Your task to perform on an android device: See recent photos Image 0: 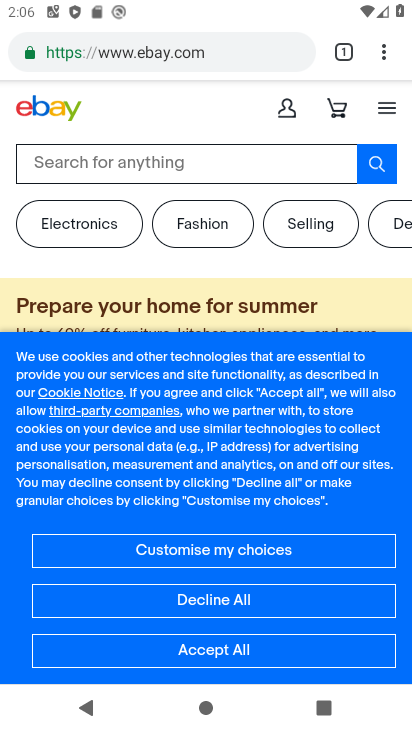
Step 0: press home button
Your task to perform on an android device: See recent photos Image 1: 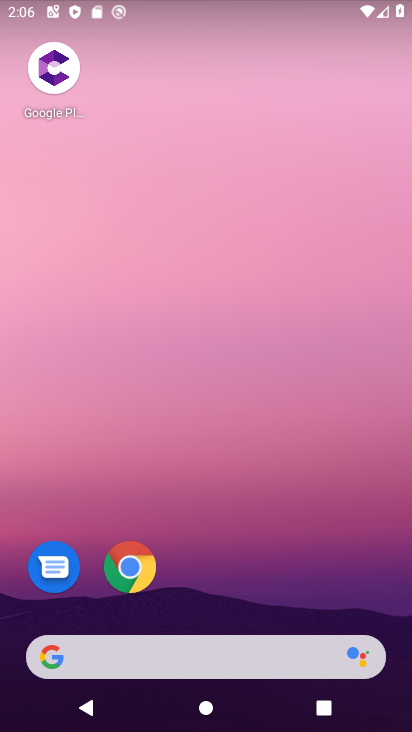
Step 1: drag from (254, 600) to (243, 308)
Your task to perform on an android device: See recent photos Image 2: 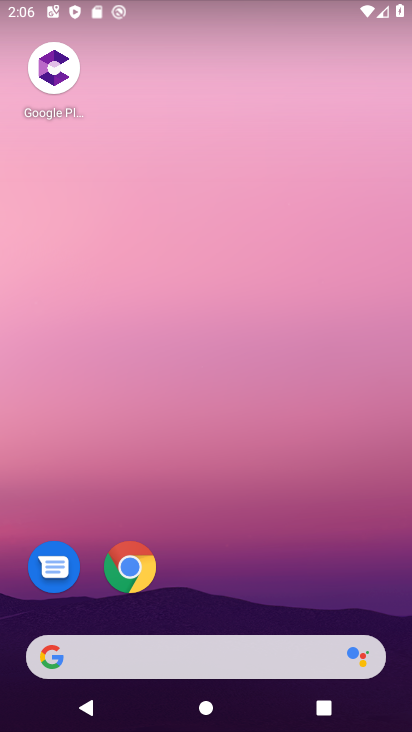
Step 2: drag from (165, 261) to (124, 158)
Your task to perform on an android device: See recent photos Image 3: 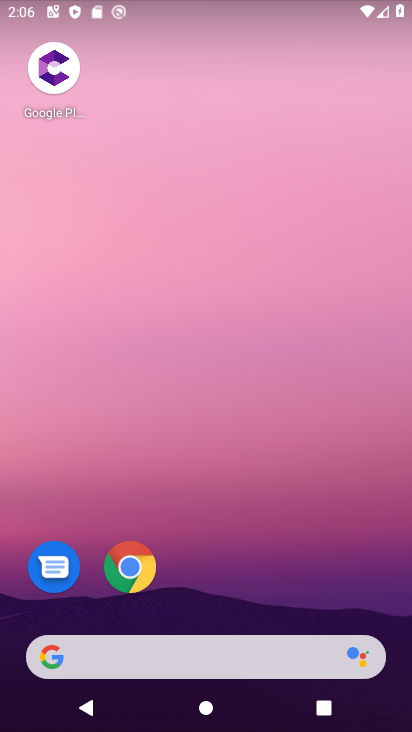
Step 3: drag from (280, 492) to (158, 5)
Your task to perform on an android device: See recent photos Image 4: 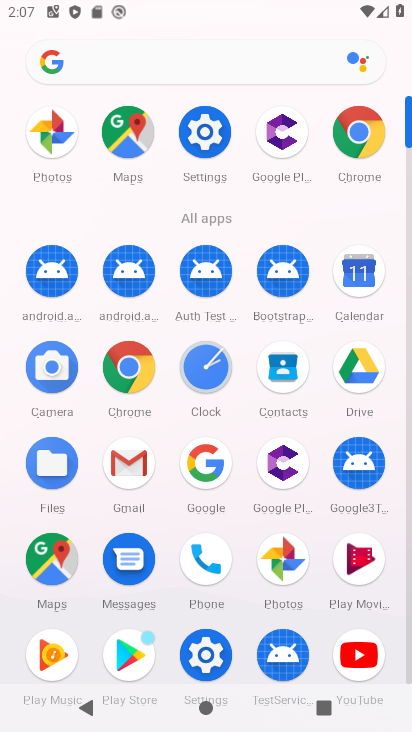
Step 4: click (293, 576)
Your task to perform on an android device: See recent photos Image 5: 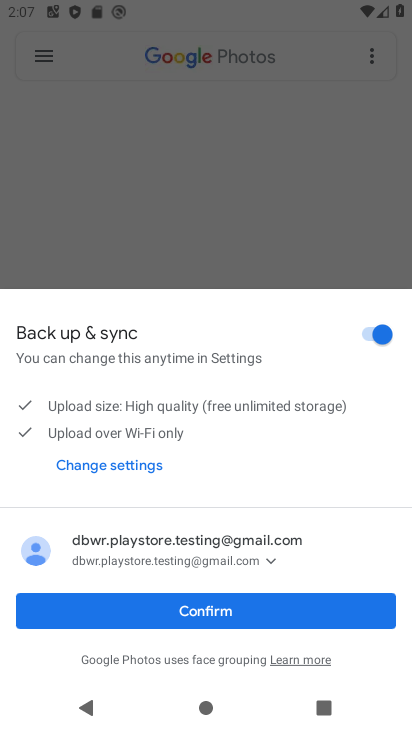
Step 5: click (249, 608)
Your task to perform on an android device: See recent photos Image 6: 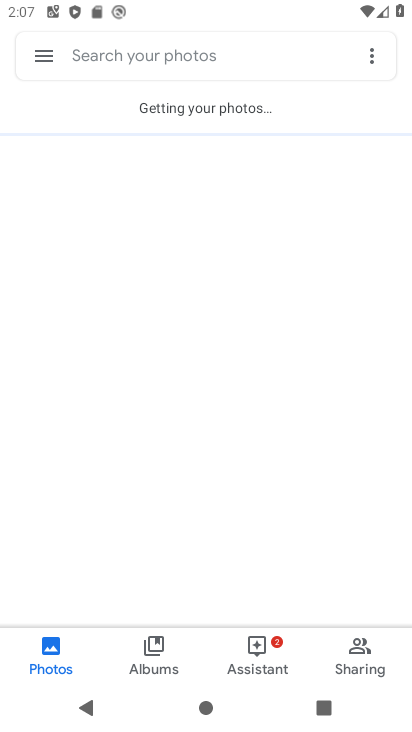
Step 6: click (149, 663)
Your task to perform on an android device: See recent photos Image 7: 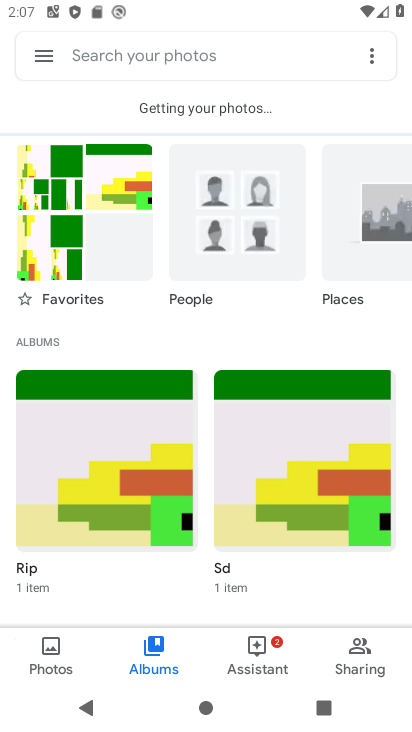
Step 7: task complete